Your task to perform on an android device: toggle wifi Image 0: 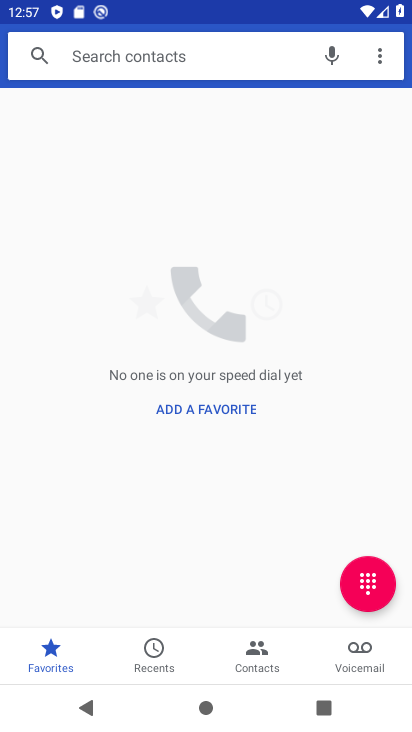
Step 0: press home button
Your task to perform on an android device: toggle wifi Image 1: 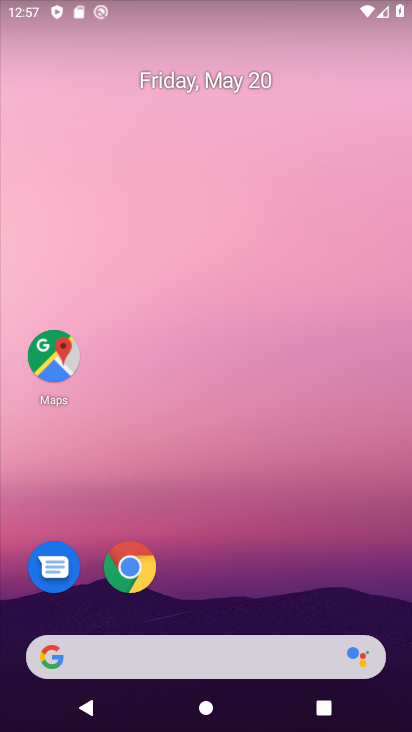
Step 1: drag from (243, 608) to (224, 102)
Your task to perform on an android device: toggle wifi Image 2: 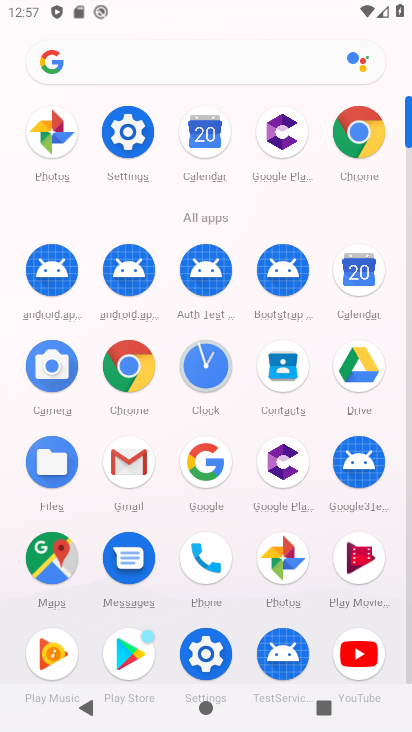
Step 2: click (134, 149)
Your task to perform on an android device: toggle wifi Image 3: 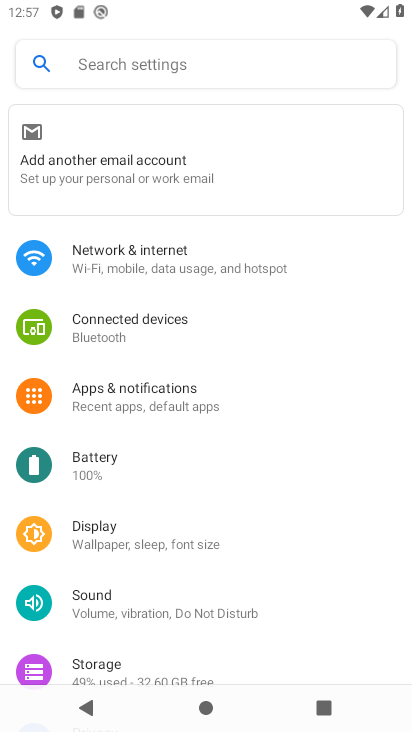
Step 3: click (152, 271)
Your task to perform on an android device: toggle wifi Image 4: 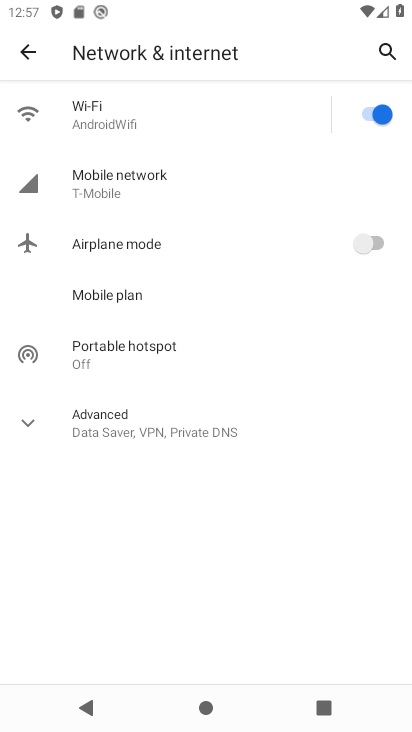
Step 4: click (372, 115)
Your task to perform on an android device: toggle wifi Image 5: 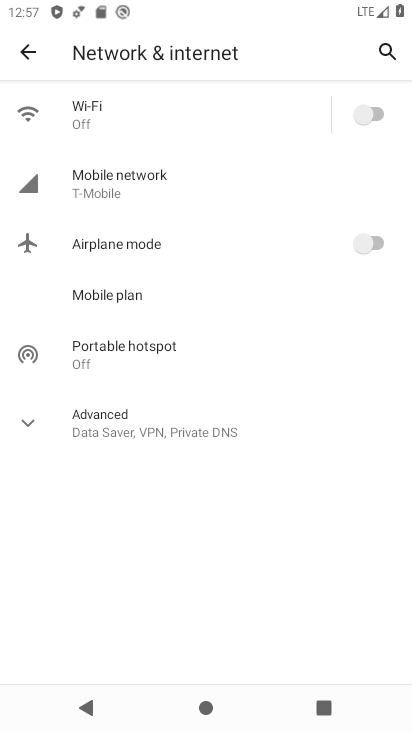
Step 5: task complete